Your task to perform on an android device: change timer sound Image 0: 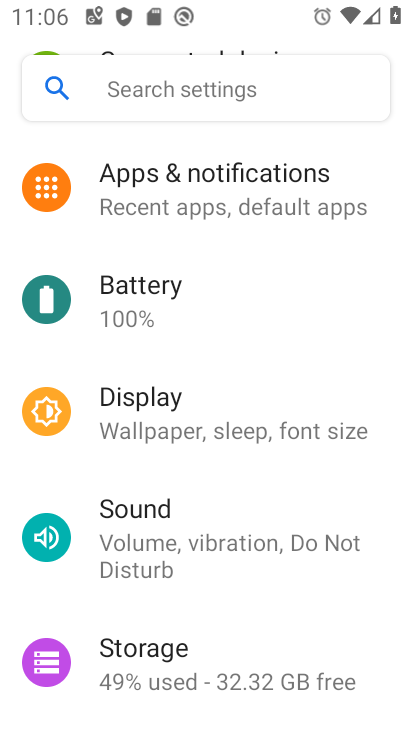
Step 0: drag from (327, 560) to (317, 265)
Your task to perform on an android device: change timer sound Image 1: 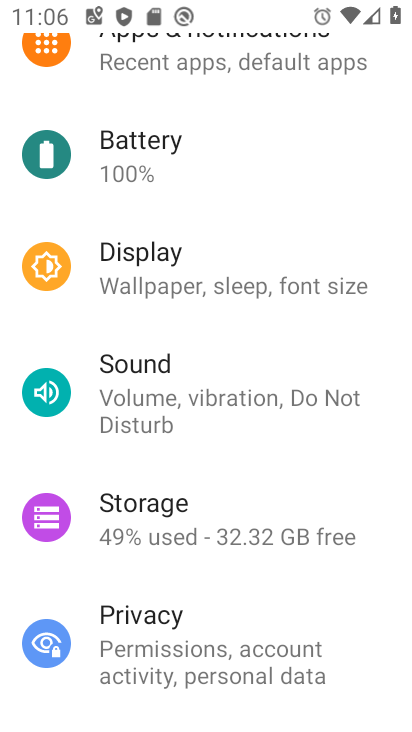
Step 1: press home button
Your task to perform on an android device: change timer sound Image 2: 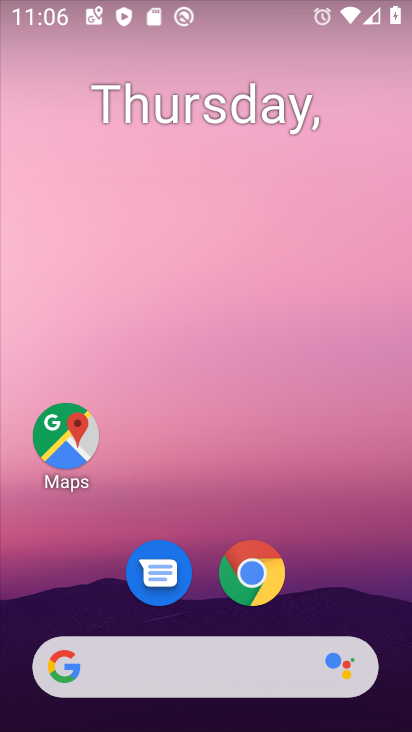
Step 2: drag from (333, 545) to (318, 157)
Your task to perform on an android device: change timer sound Image 3: 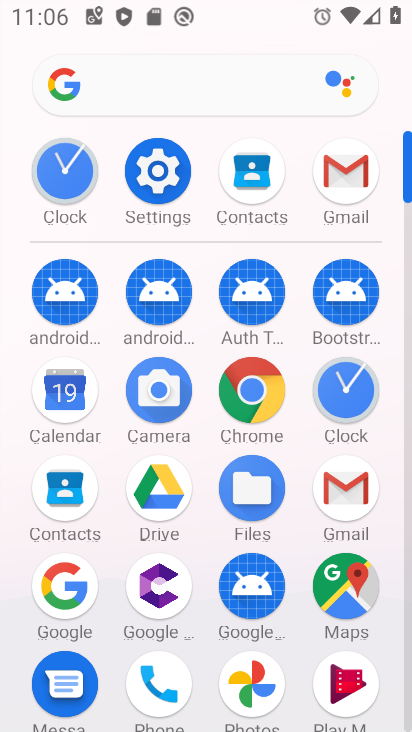
Step 3: click (349, 394)
Your task to perform on an android device: change timer sound Image 4: 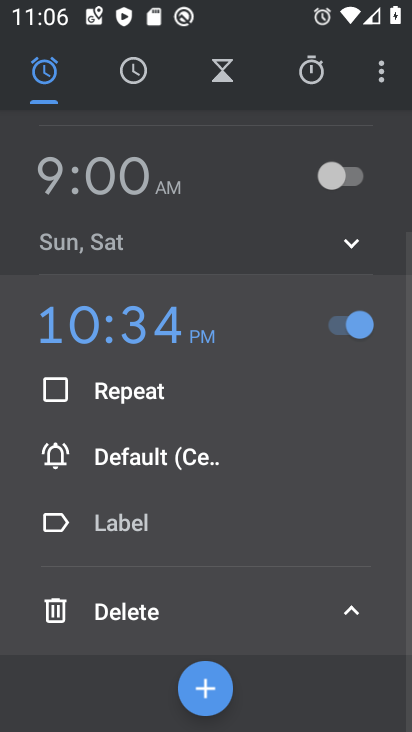
Step 4: click (384, 69)
Your task to perform on an android device: change timer sound Image 5: 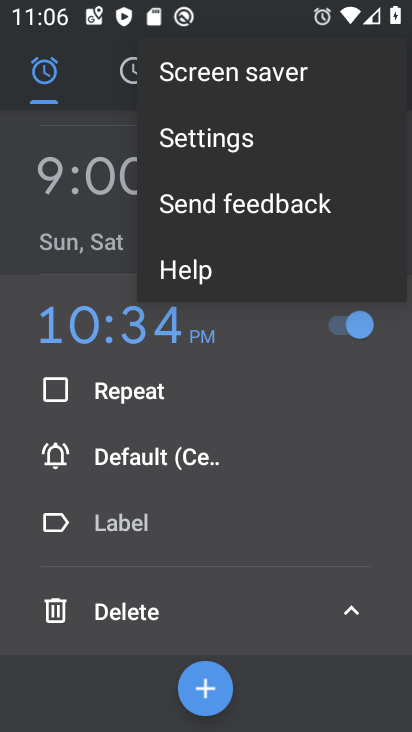
Step 5: click (232, 141)
Your task to perform on an android device: change timer sound Image 6: 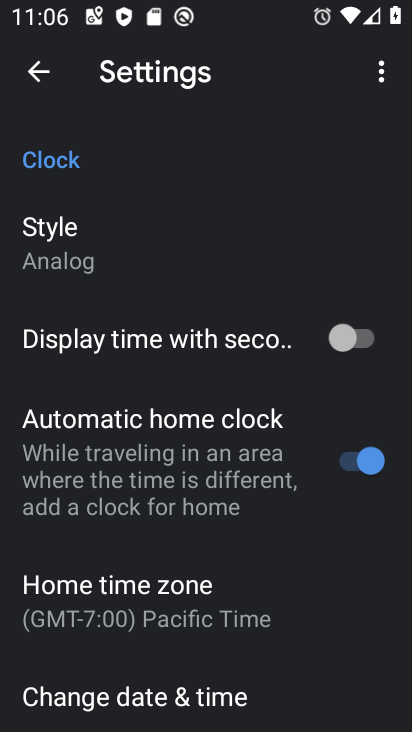
Step 6: drag from (198, 594) to (236, 133)
Your task to perform on an android device: change timer sound Image 7: 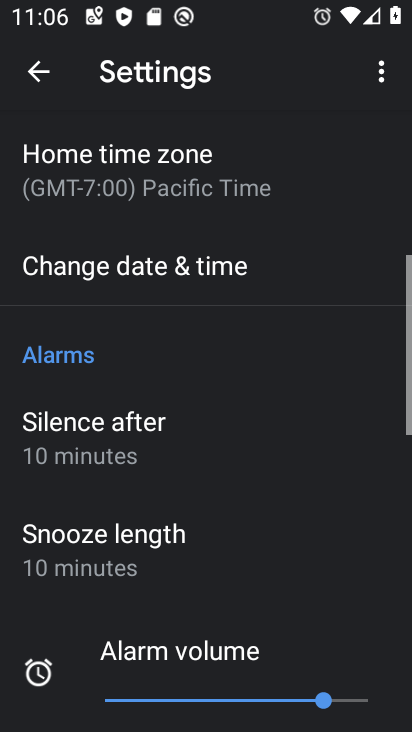
Step 7: click (236, 133)
Your task to perform on an android device: change timer sound Image 8: 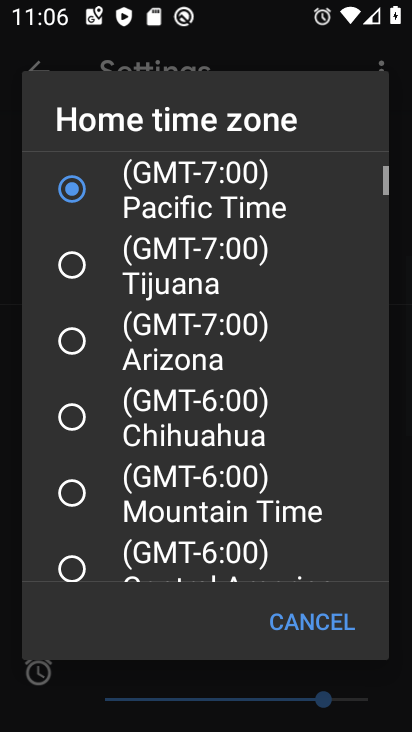
Step 8: drag from (224, 570) to (260, 282)
Your task to perform on an android device: change timer sound Image 9: 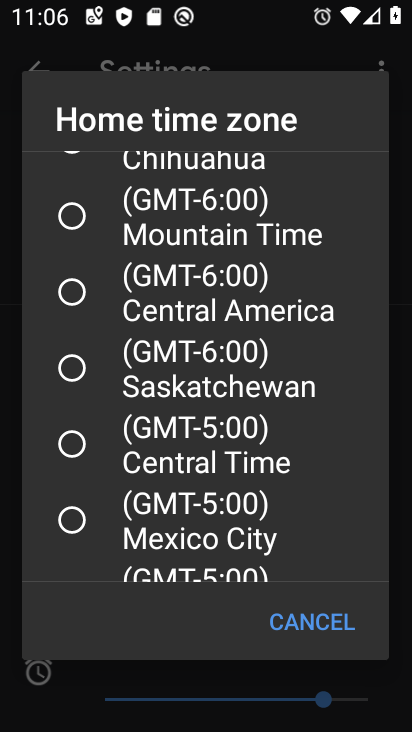
Step 9: click (290, 607)
Your task to perform on an android device: change timer sound Image 10: 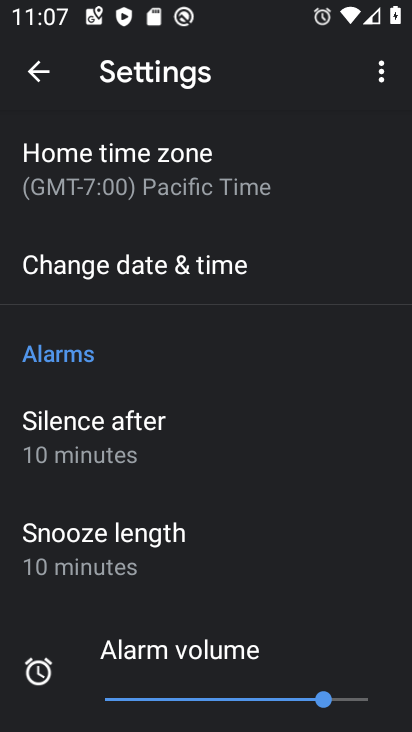
Step 10: drag from (282, 609) to (262, 165)
Your task to perform on an android device: change timer sound Image 11: 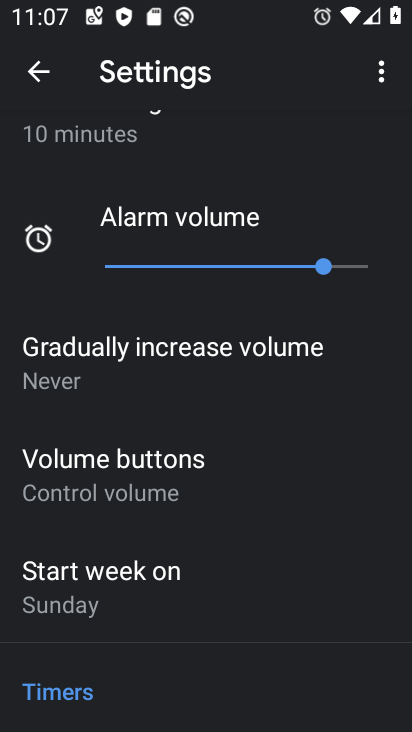
Step 11: drag from (136, 563) to (215, 208)
Your task to perform on an android device: change timer sound Image 12: 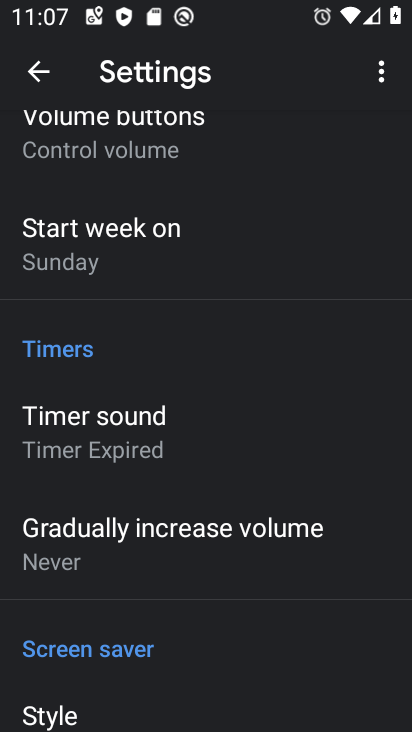
Step 12: click (106, 439)
Your task to perform on an android device: change timer sound Image 13: 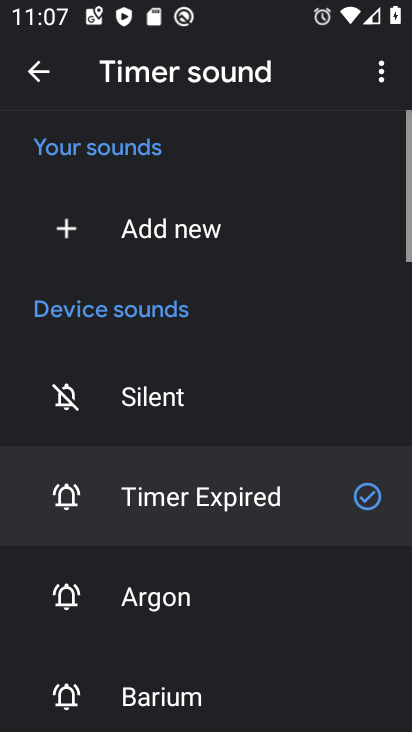
Step 13: click (186, 587)
Your task to perform on an android device: change timer sound Image 14: 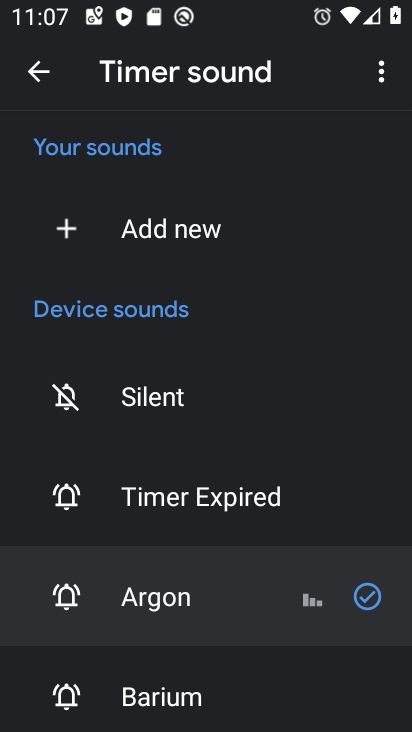
Step 14: task complete